Your task to perform on an android device: open wifi settings Image 0: 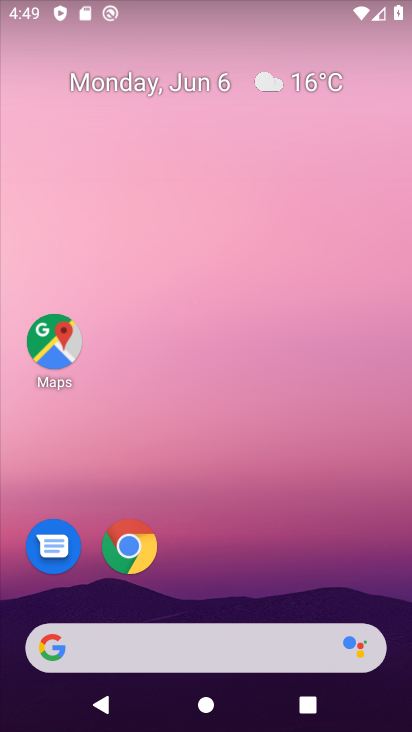
Step 0: drag from (199, 633) to (218, 152)
Your task to perform on an android device: open wifi settings Image 1: 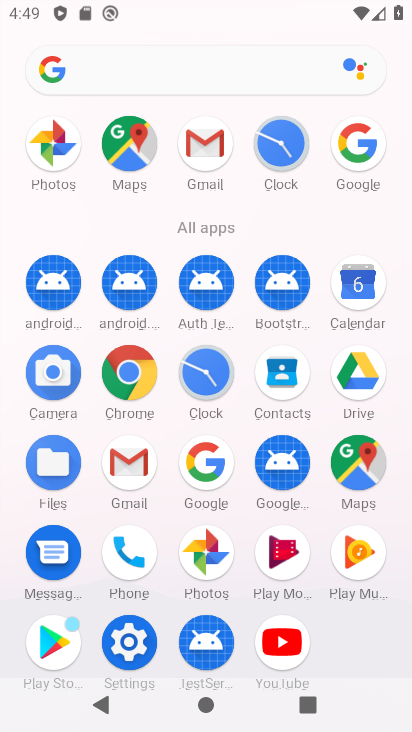
Step 1: click (148, 639)
Your task to perform on an android device: open wifi settings Image 2: 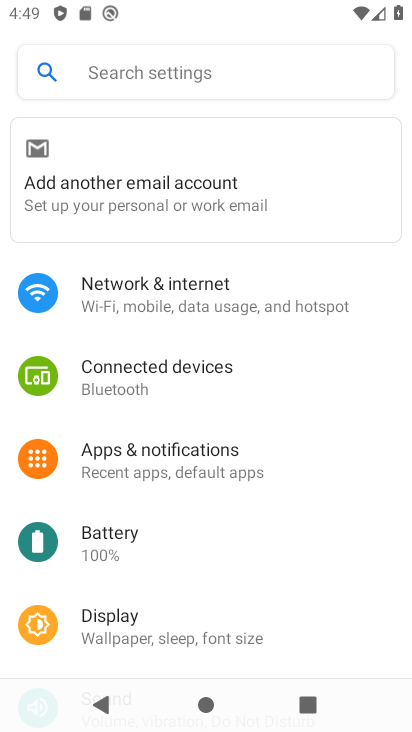
Step 2: click (175, 306)
Your task to perform on an android device: open wifi settings Image 3: 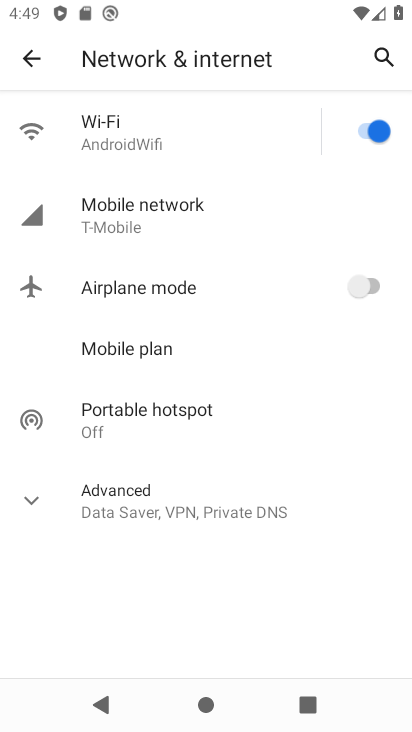
Step 3: click (132, 135)
Your task to perform on an android device: open wifi settings Image 4: 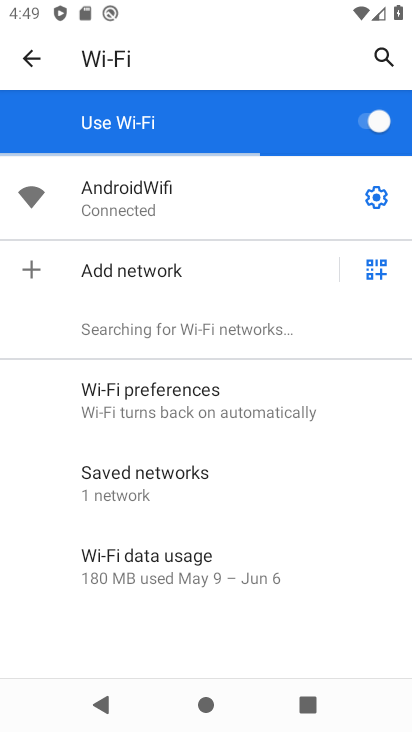
Step 4: click (378, 194)
Your task to perform on an android device: open wifi settings Image 5: 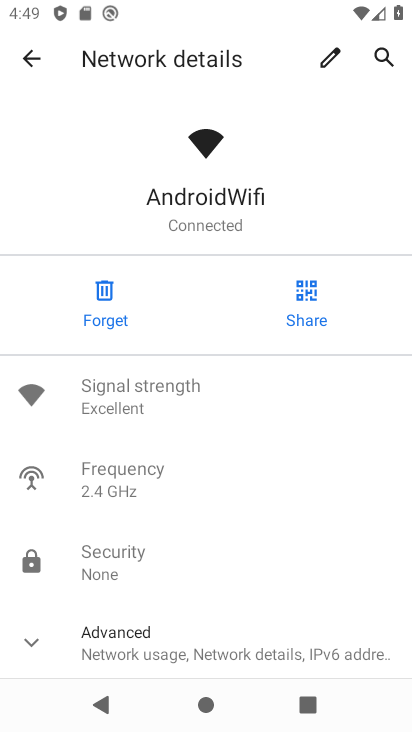
Step 5: click (105, 637)
Your task to perform on an android device: open wifi settings Image 6: 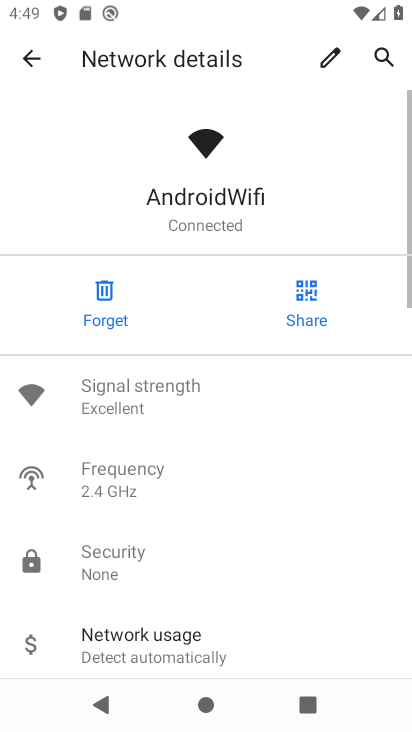
Step 6: task complete